Your task to perform on an android device: check battery use Image 0: 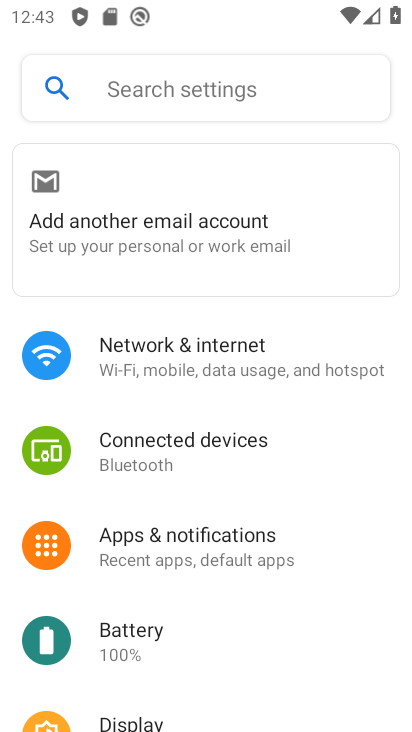
Step 0: click (133, 637)
Your task to perform on an android device: check battery use Image 1: 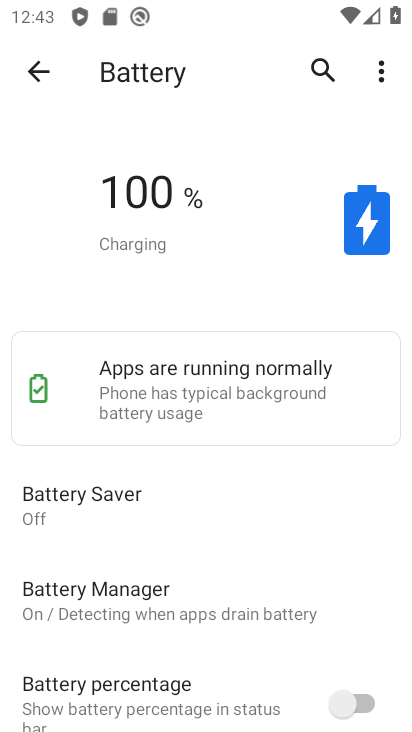
Step 1: click (381, 75)
Your task to perform on an android device: check battery use Image 2: 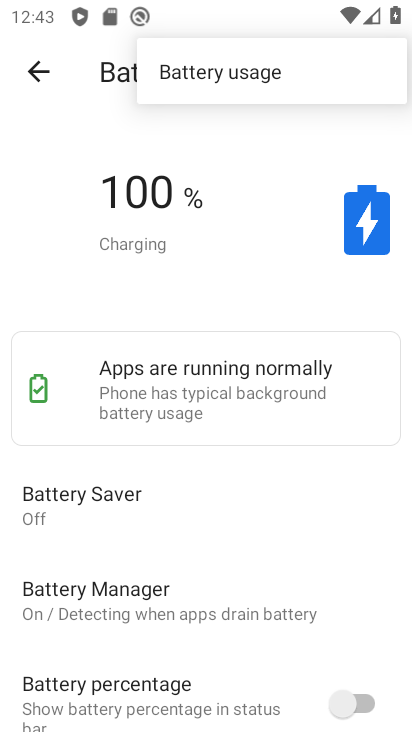
Step 2: click (287, 64)
Your task to perform on an android device: check battery use Image 3: 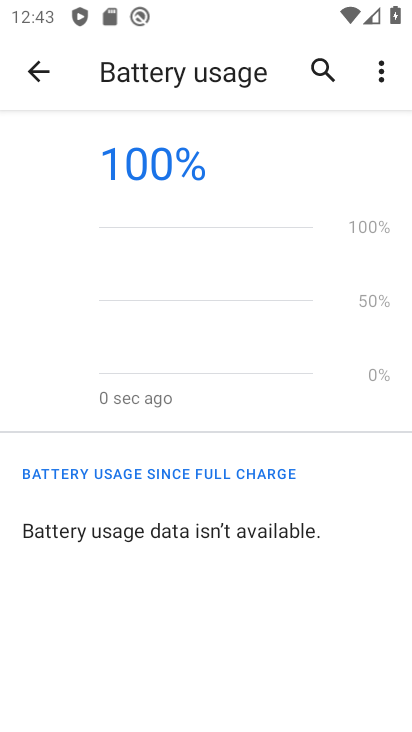
Step 3: task complete